Your task to perform on an android device: install app "ZOOM Cloud Meetings" Image 0: 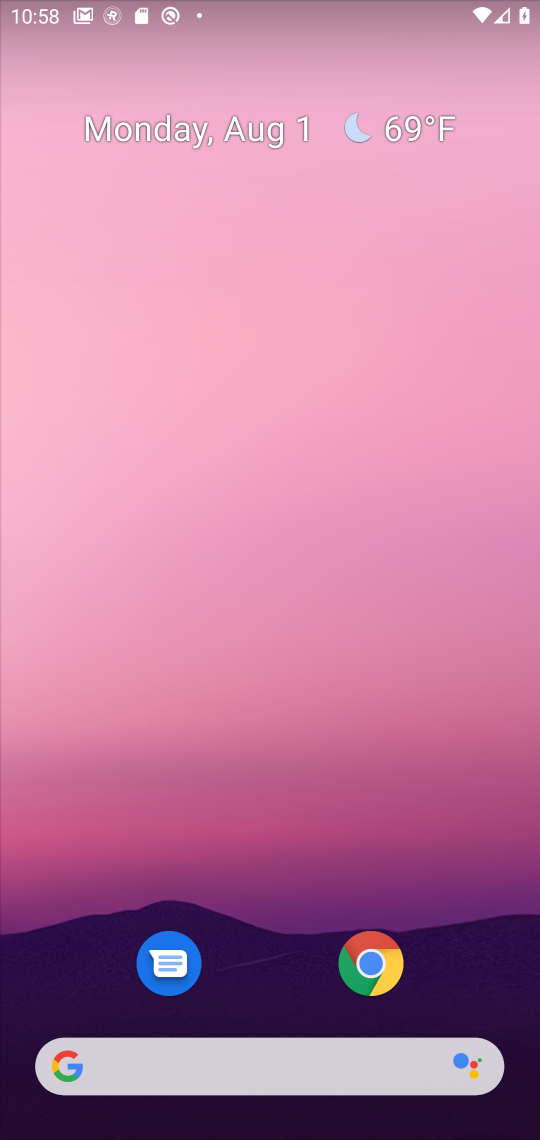
Step 0: drag from (250, 994) to (313, 42)
Your task to perform on an android device: install app "ZOOM Cloud Meetings" Image 1: 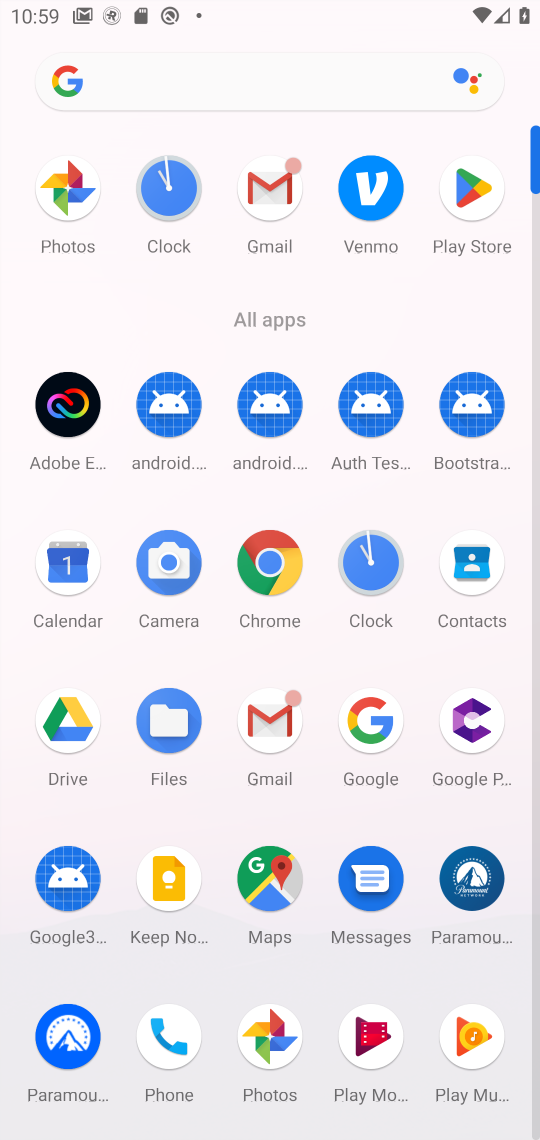
Step 1: click (494, 190)
Your task to perform on an android device: install app "ZOOM Cloud Meetings" Image 2: 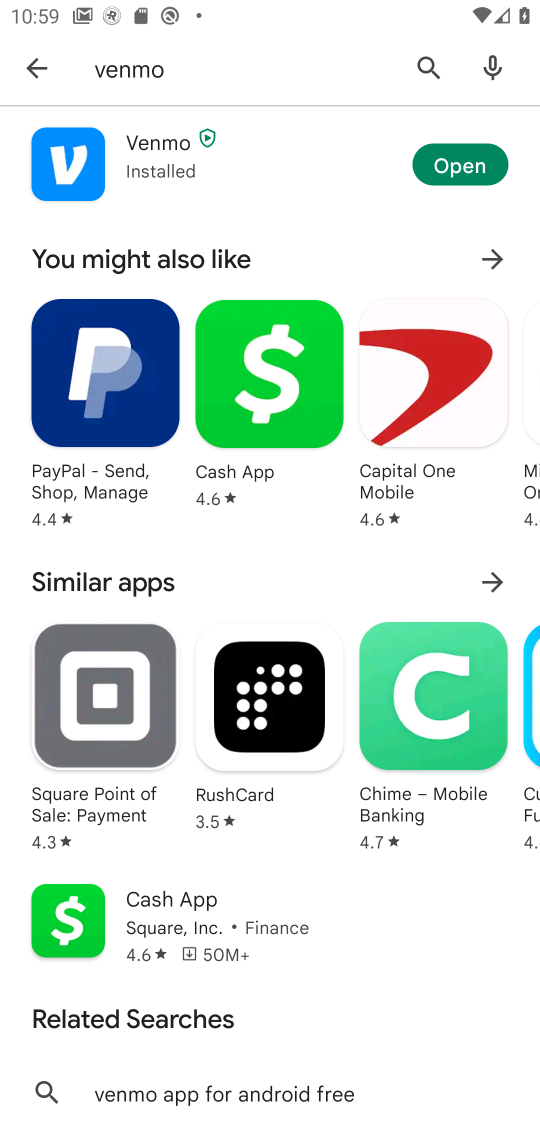
Step 2: click (250, 72)
Your task to perform on an android device: install app "ZOOM Cloud Meetings" Image 3: 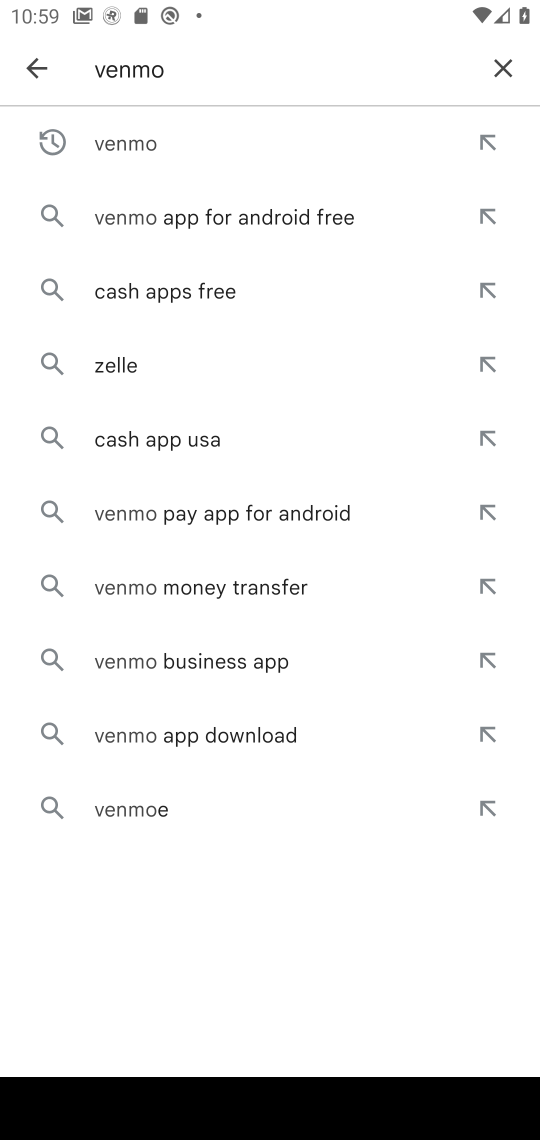
Step 3: click (494, 70)
Your task to perform on an android device: install app "ZOOM Cloud Meetings" Image 4: 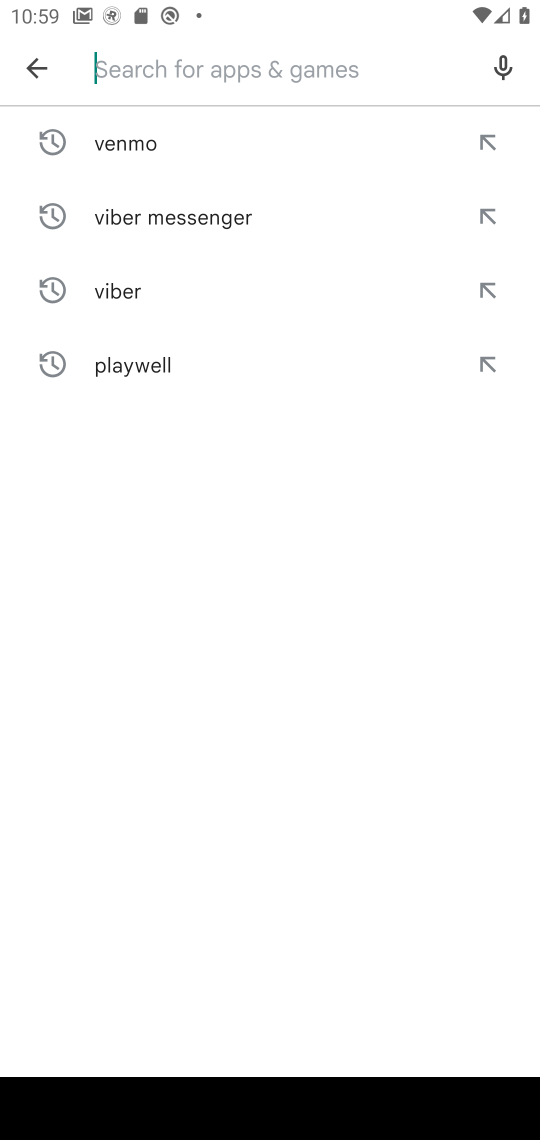
Step 4: type "zoom"
Your task to perform on an android device: install app "ZOOM Cloud Meetings" Image 5: 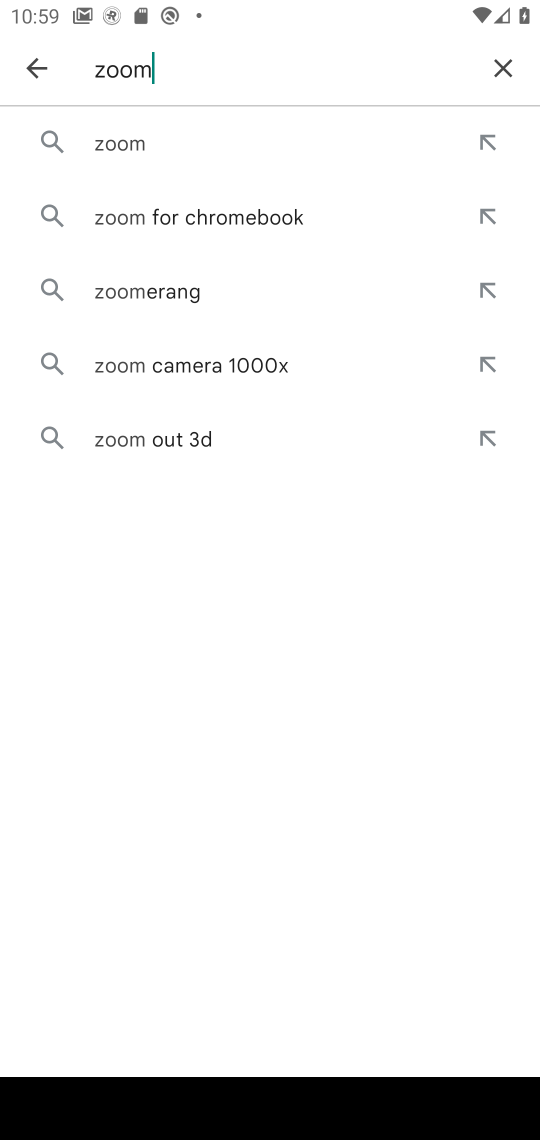
Step 5: click (177, 153)
Your task to perform on an android device: install app "ZOOM Cloud Meetings" Image 6: 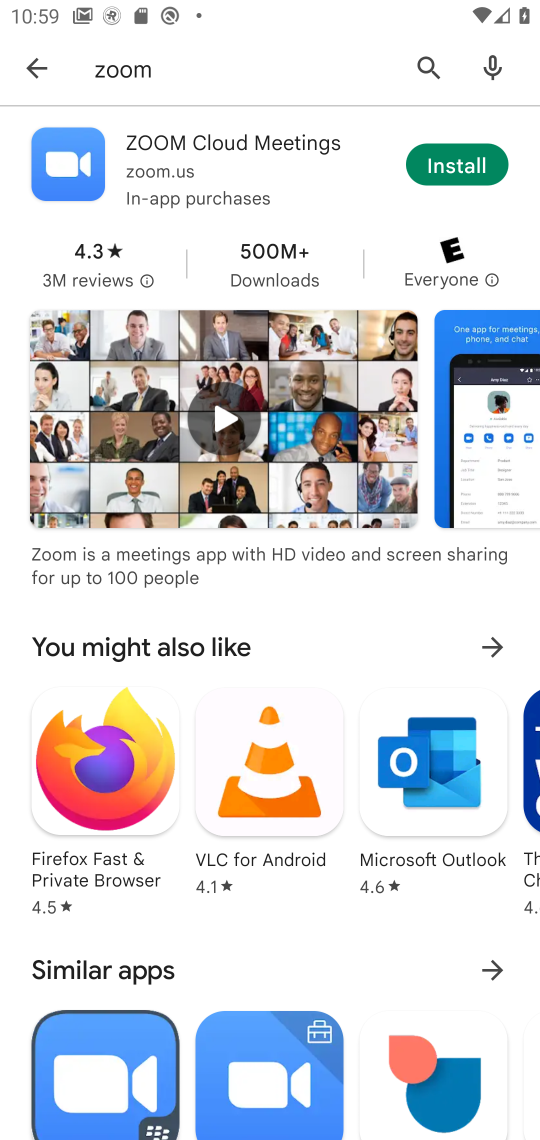
Step 6: click (483, 166)
Your task to perform on an android device: install app "ZOOM Cloud Meetings" Image 7: 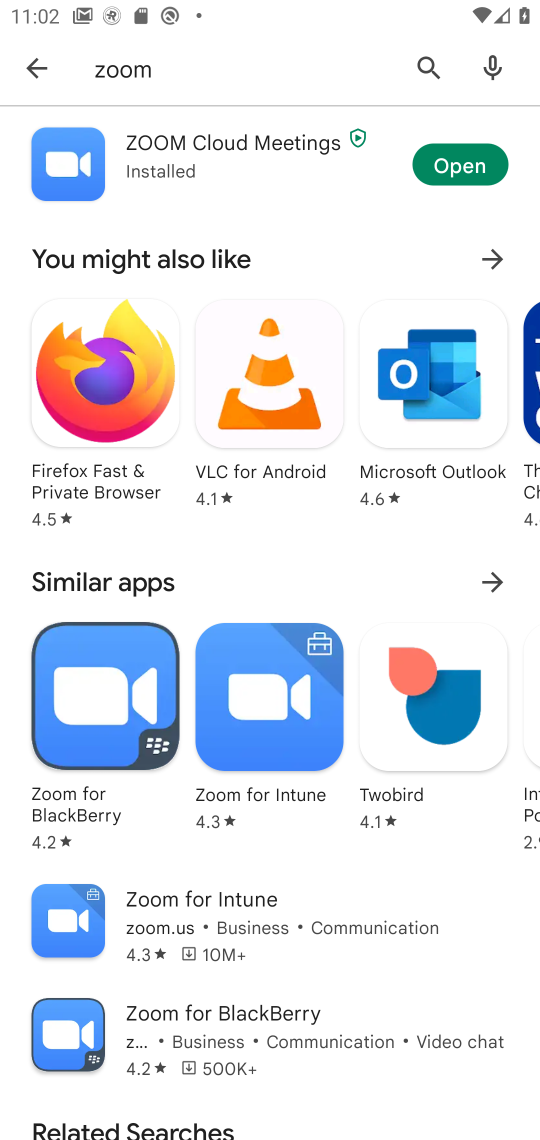
Step 7: task complete